Your task to perform on an android device: What's on my calendar today? Image 0: 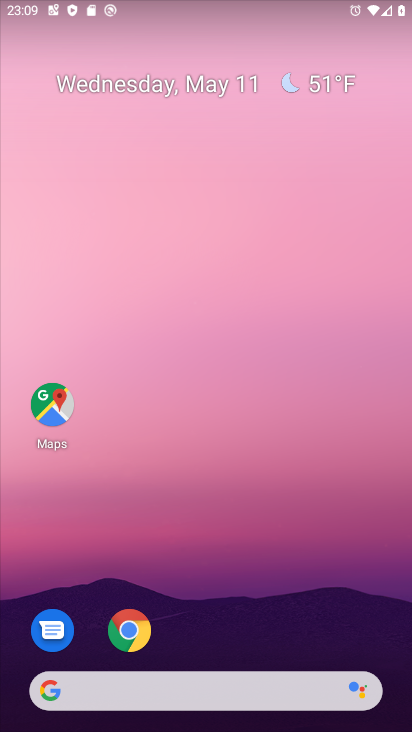
Step 0: drag from (228, 725) to (226, 226)
Your task to perform on an android device: What's on my calendar today? Image 1: 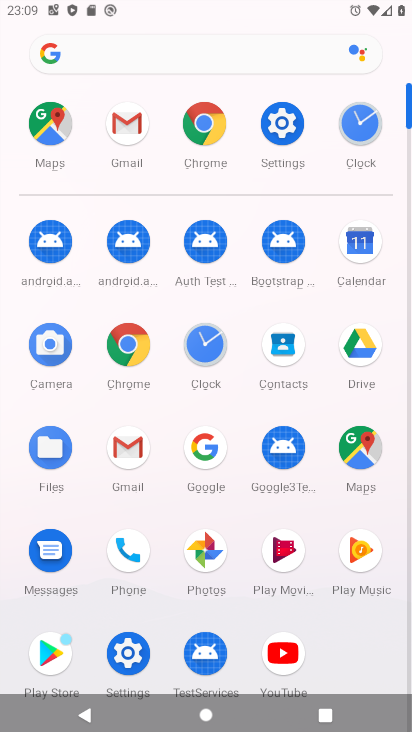
Step 1: click (357, 249)
Your task to perform on an android device: What's on my calendar today? Image 2: 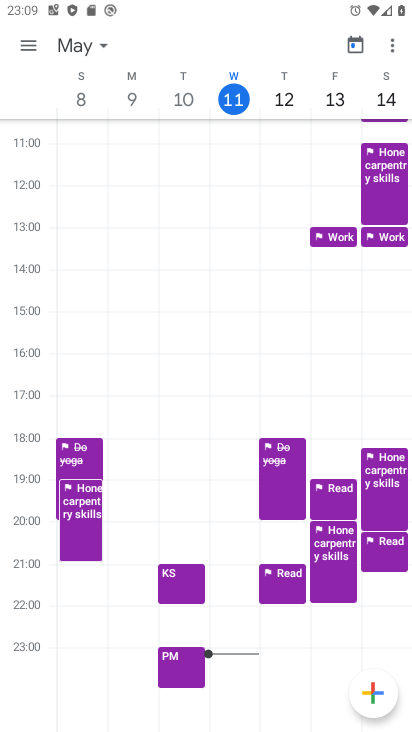
Step 2: click (285, 93)
Your task to perform on an android device: What's on my calendar today? Image 3: 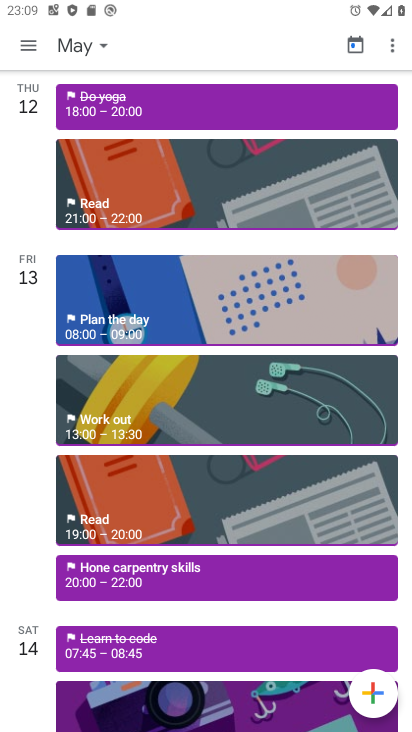
Step 3: task complete